Your task to perform on an android device: check google app version Image 0: 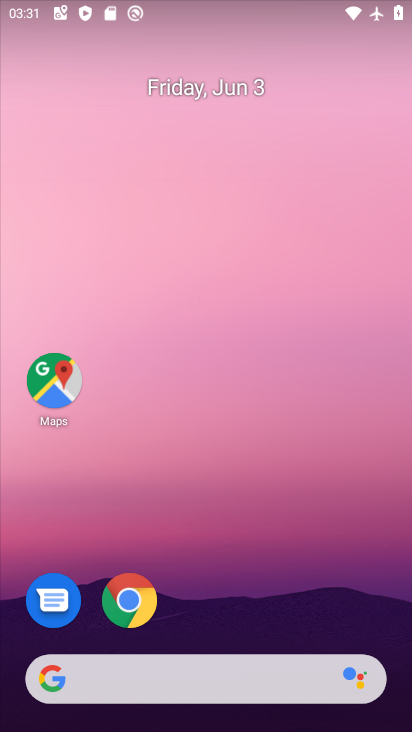
Step 0: click (204, 668)
Your task to perform on an android device: check google app version Image 1: 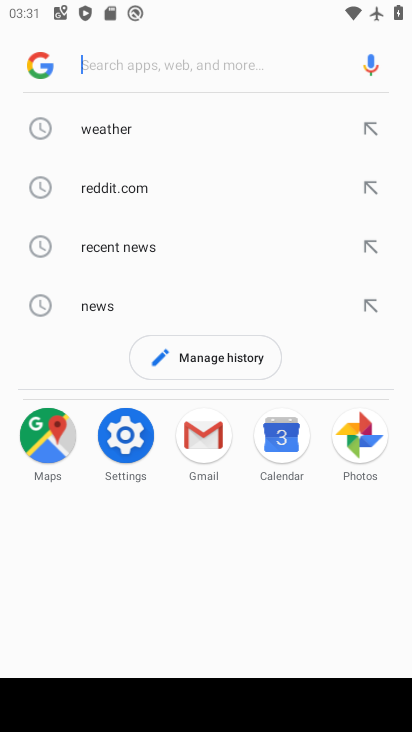
Step 1: click (48, 68)
Your task to perform on an android device: check google app version Image 2: 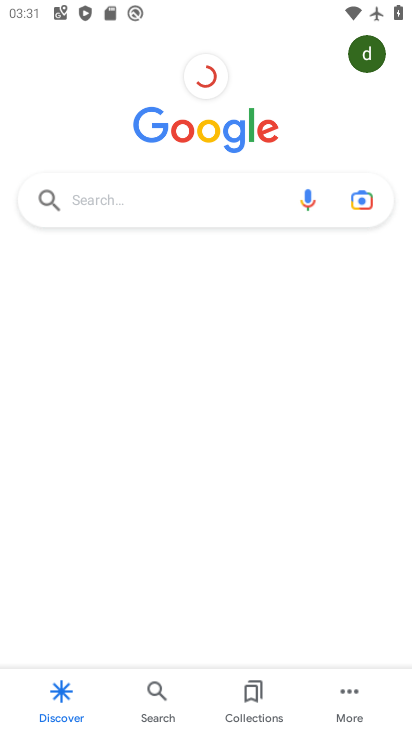
Step 2: click (304, 695)
Your task to perform on an android device: check google app version Image 3: 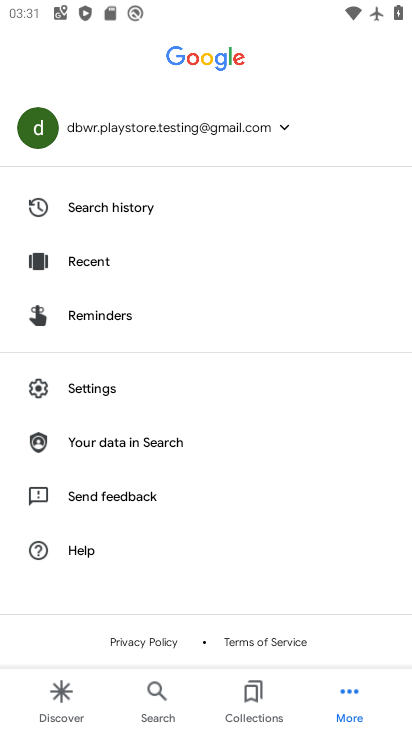
Step 3: click (348, 692)
Your task to perform on an android device: check google app version Image 4: 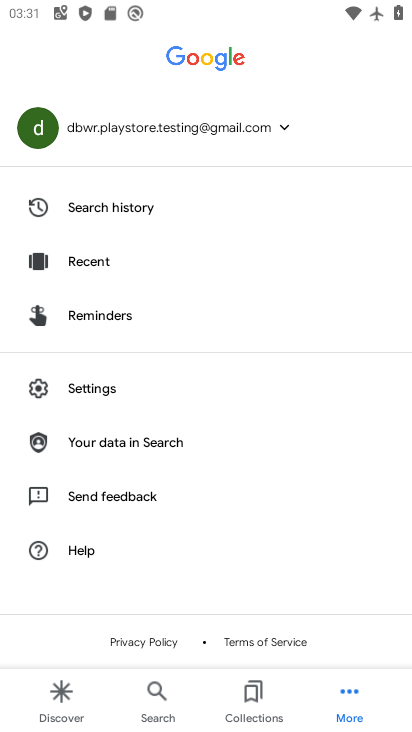
Step 4: click (93, 388)
Your task to perform on an android device: check google app version Image 5: 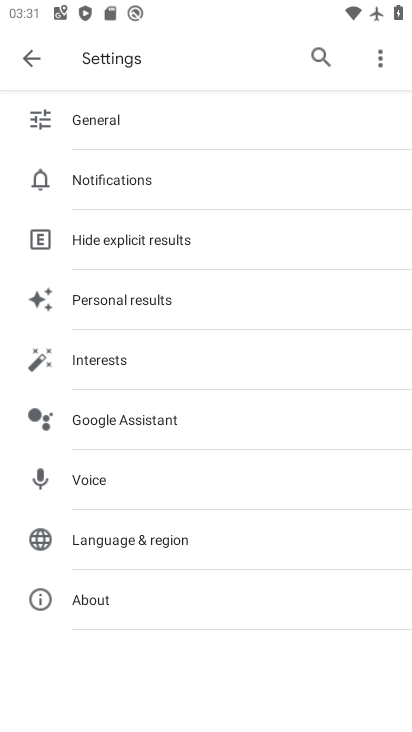
Step 5: click (113, 603)
Your task to perform on an android device: check google app version Image 6: 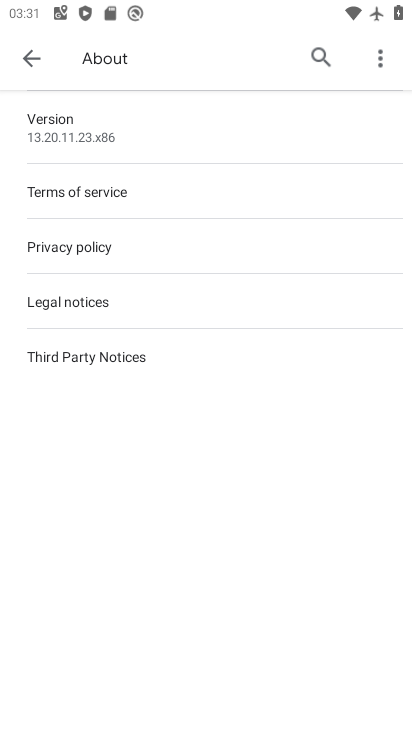
Step 6: task complete